Your task to perform on an android device: toggle data saver in the chrome app Image 0: 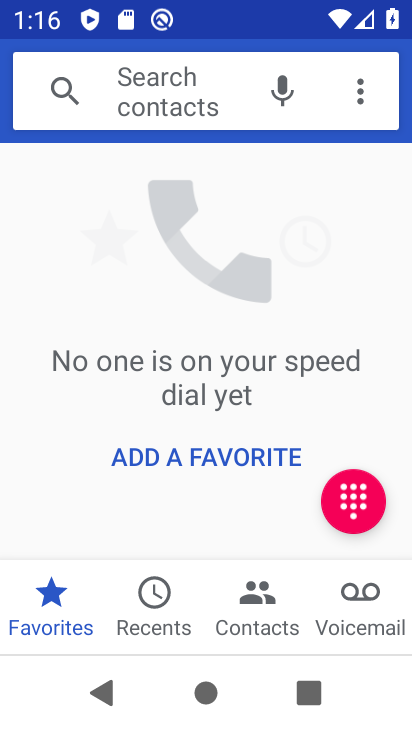
Step 0: press home button
Your task to perform on an android device: toggle data saver in the chrome app Image 1: 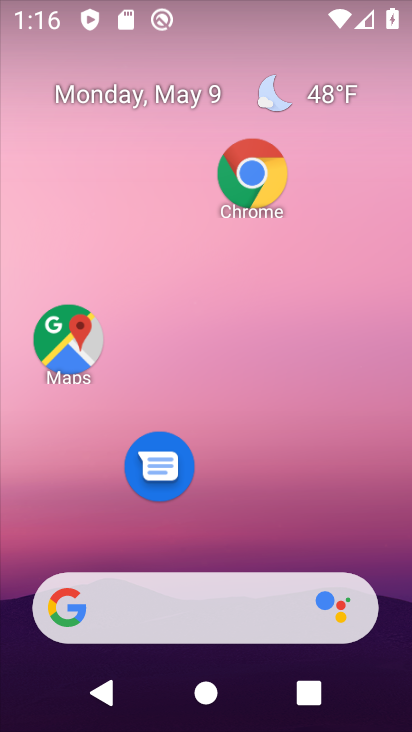
Step 1: click (254, 202)
Your task to perform on an android device: toggle data saver in the chrome app Image 2: 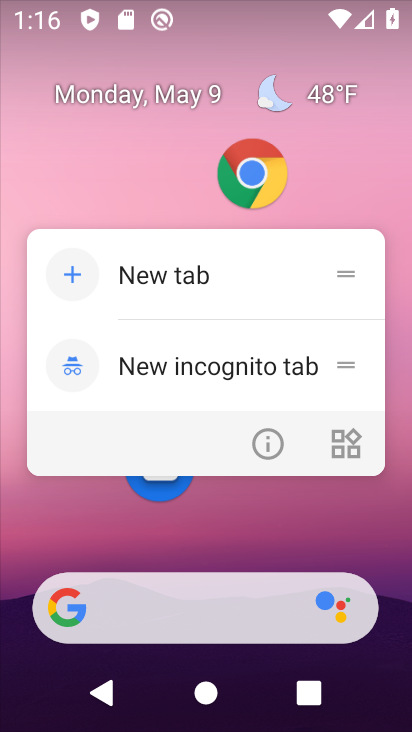
Step 2: click (254, 202)
Your task to perform on an android device: toggle data saver in the chrome app Image 3: 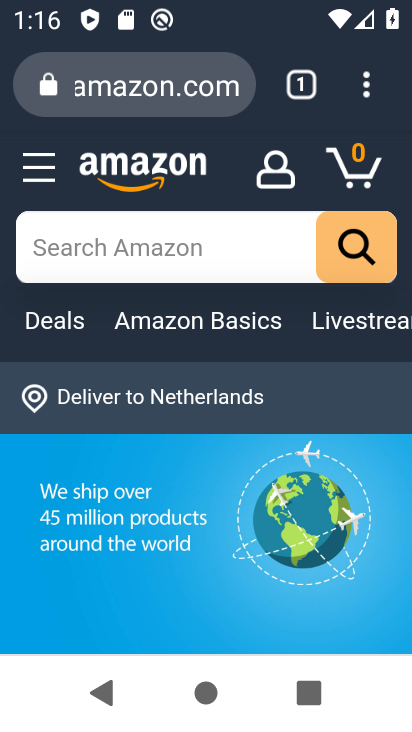
Step 3: drag from (364, 92) to (125, 532)
Your task to perform on an android device: toggle data saver in the chrome app Image 4: 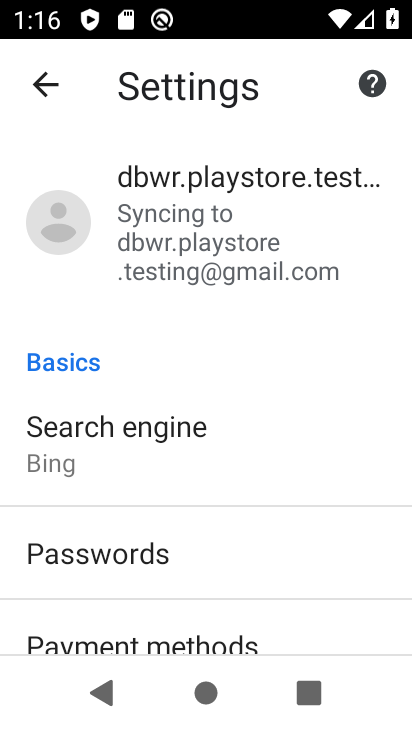
Step 4: drag from (168, 590) to (217, 382)
Your task to perform on an android device: toggle data saver in the chrome app Image 5: 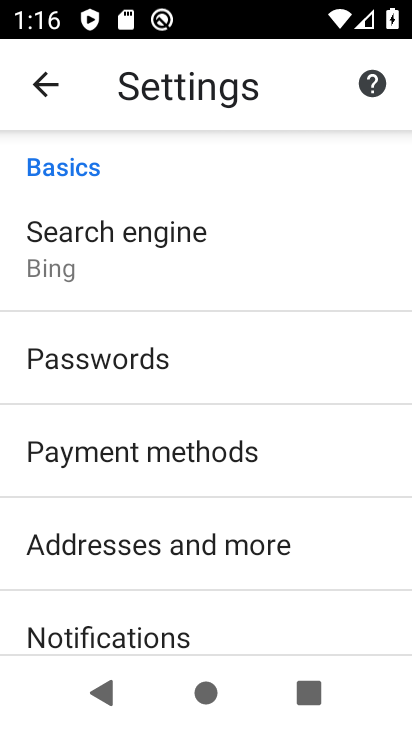
Step 5: drag from (221, 525) to (263, 282)
Your task to perform on an android device: toggle data saver in the chrome app Image 6: 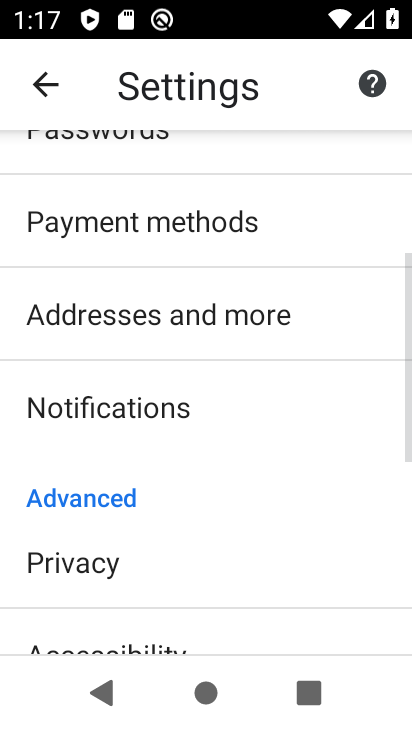
Step 6: drag from (220, 502) to (250, 317)
Your task to perform on an android device: toggle data saver in the chrome app Image 7: 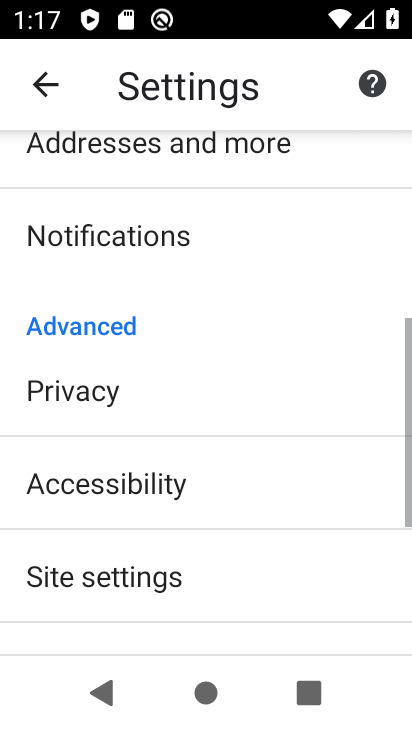
Step 7: drag from (204, 521) to (235, 363)
Your task to perform on an android device: toggle data saver in the chrome app Image 8: 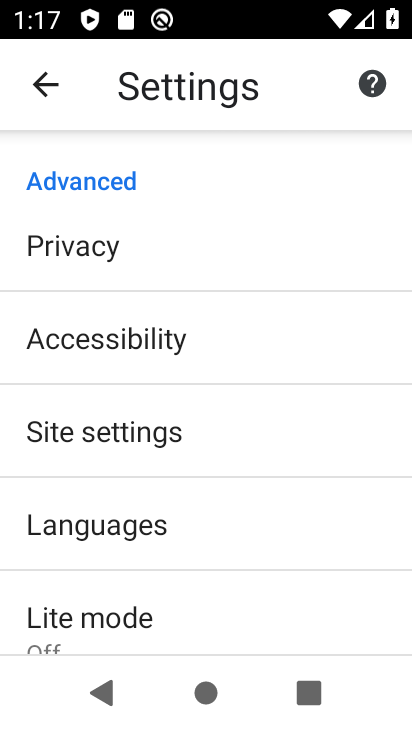
Step 8: drag from (181, 596) to (206, 435)
Your task to perform on an android device: toggle data saver in the chrome app Image 9: 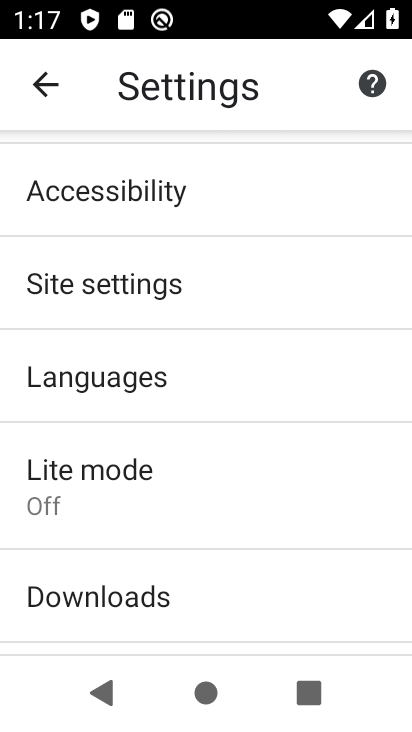
Step 9: drag from (160, 588) to (217, 408)
Your task to perform on an android device: toggle data saver in the chrome app Image 10: 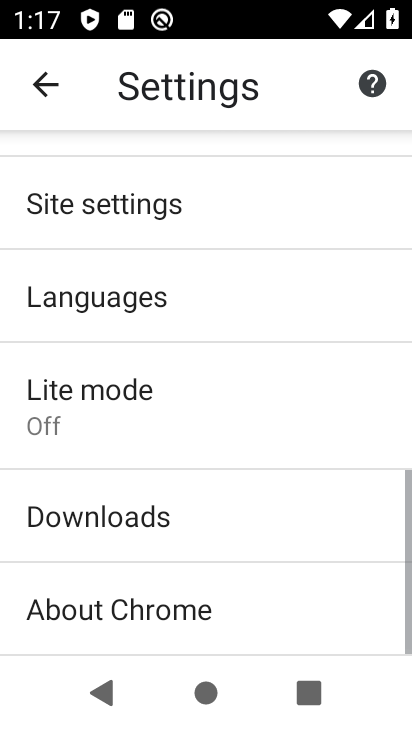
Step 10: drag from (174, 564) to (209, 410)
Your task to perform on an android device: toggle data saver in the chrome app Image 11: 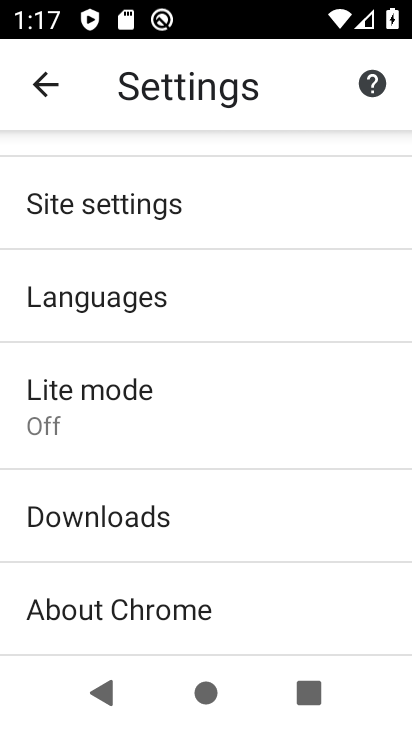
Step 11: click (147, 417)
Your task to perform on an android device: toggle data saver in the chrome app Image 12: 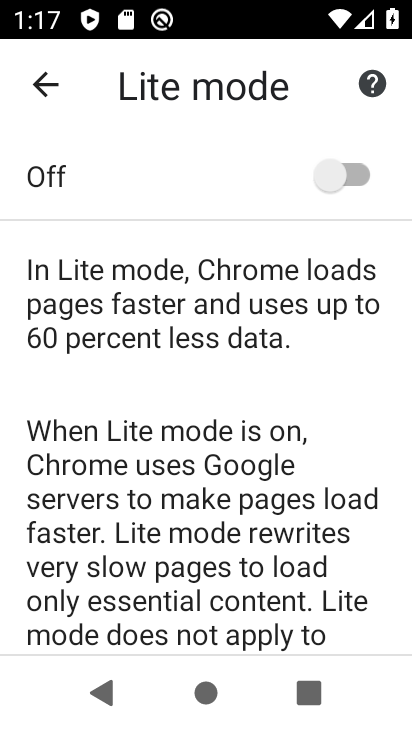
Step 12: click (355, 175)
Your task to perform on an android device: toggle data saver in the chrome app Image 13: 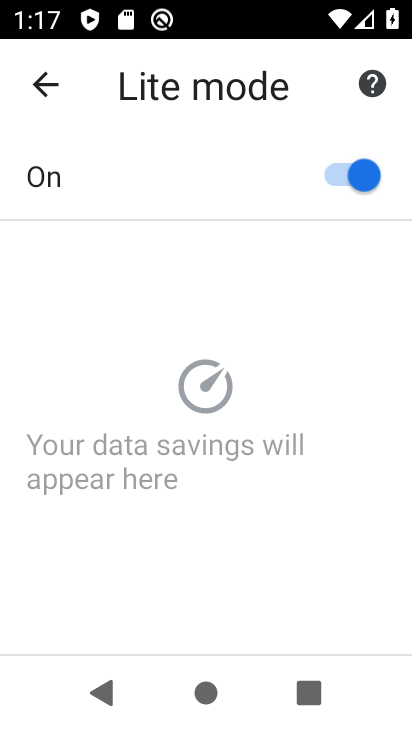
Step 13: task complete